Your task to perform on an android device: Open settings on Google Maps Image 0: 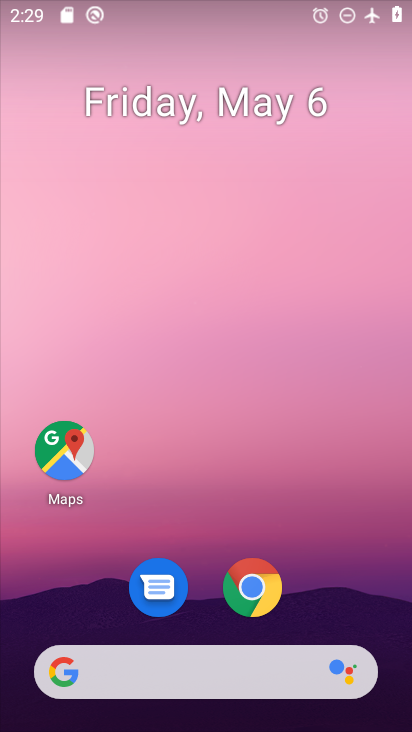
Step 0: drag from (323, 575) to (342, 97)
Your task to perform on an android device: Open settings on Google Maps Image 1: 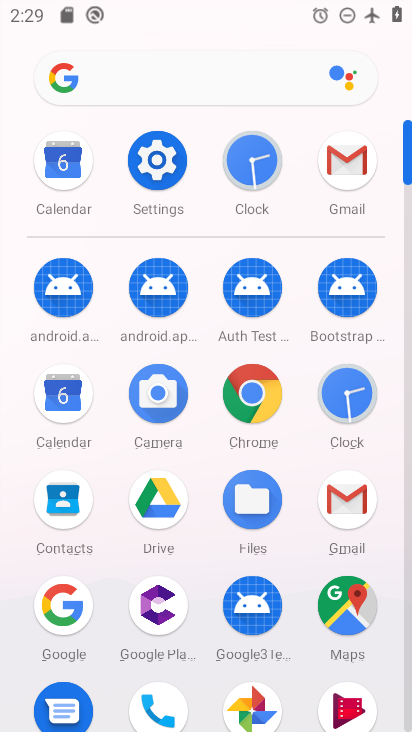
Step 1: click (334, 605)
Your task to perform on an android device: Open settings on Google Maps Image 2: 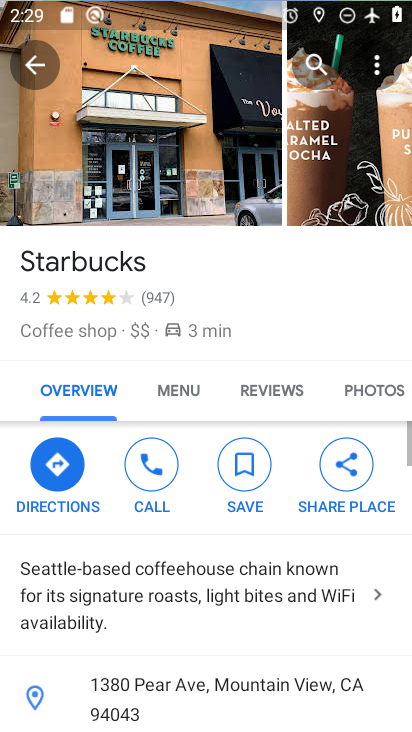
Step 2: click (45, 59)
Your task to perform on an android device: Open settings on Google Maps Image 3: 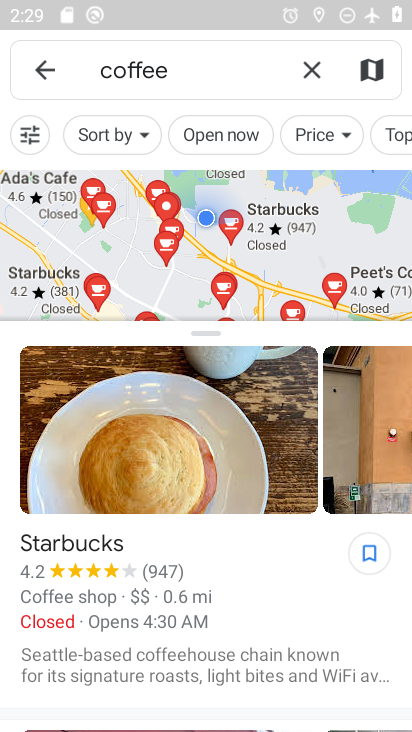
Step 3: click (45, 60)
Your task to perform on an android device: Open settings on Google Maps Image 4: 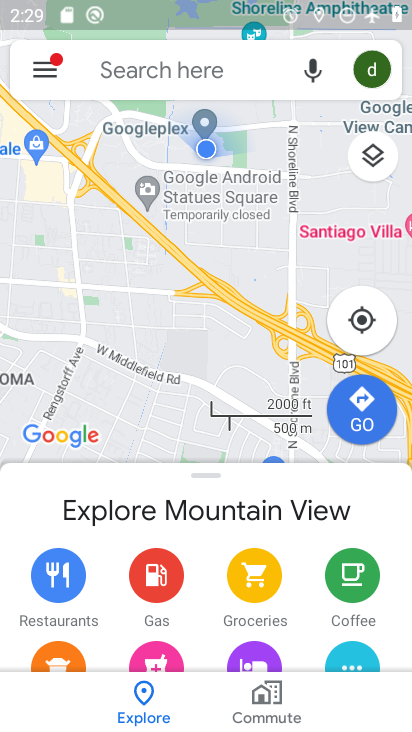
Step 4: click (42, 73)
Your task to perform on an android device: Open settings on Google Maps Image 5: 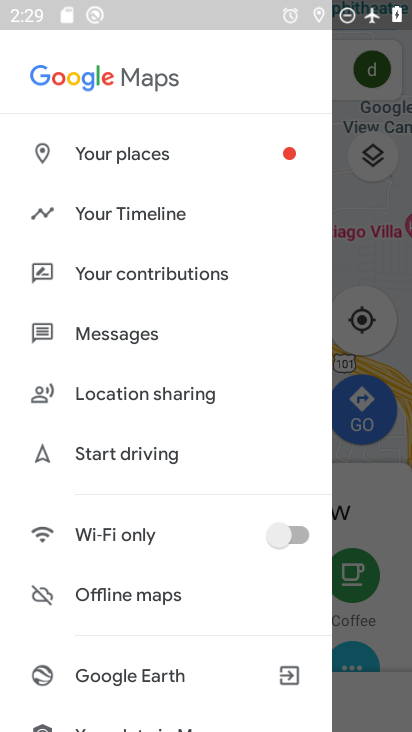
Step 5: drag from (158, 544) to (172, 165)
Your task to perform on an android device: Open settings on Google Maps Image 6: 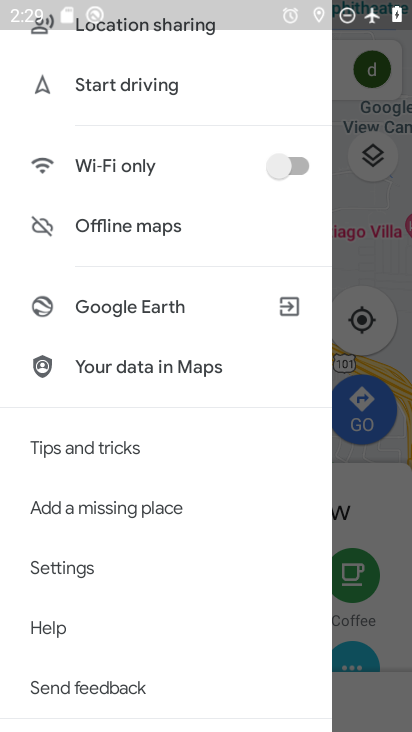
Step 6: click (90, 560)
Your task to perform on an android device: Open settings on Google Maps Image 7: 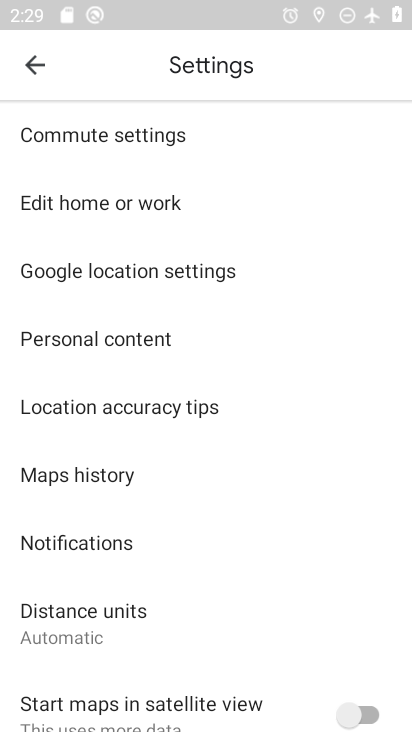
Step 7: task complete